Your task to perform on an android device: Go to Google Image 0: 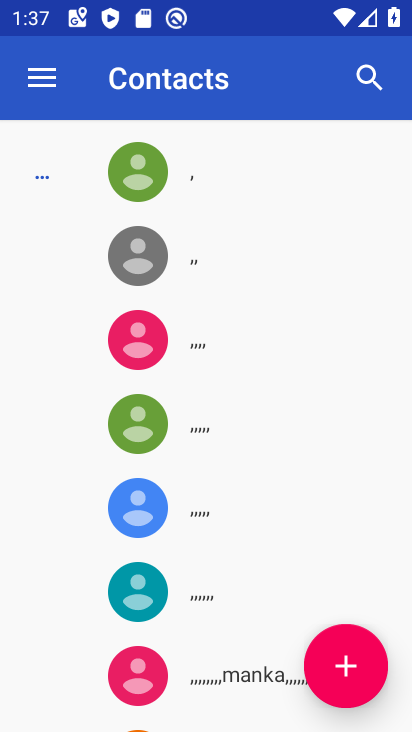
Step 0: press home button
Your task to perform on an android device: Go to Google Image 1: 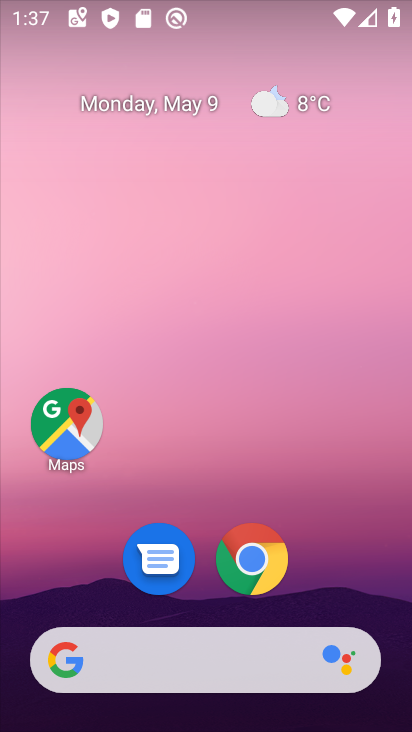
Step 1: click (169, 657)
Your task to perform on an android device: Go to Google Image 2: 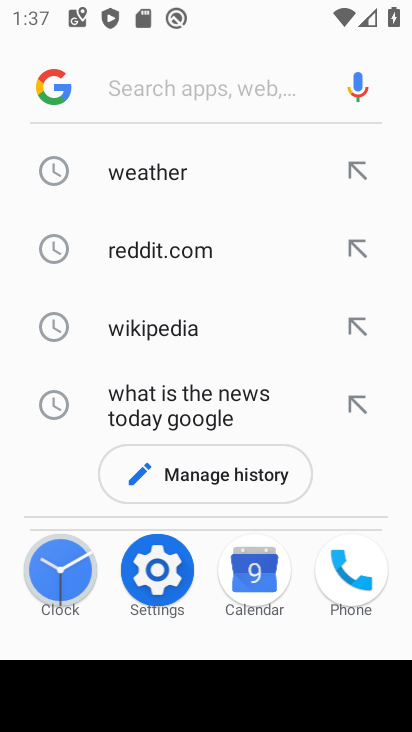
Step 2: click (137, 80)
Your task to perform on an android device: Go to Google Image 3: 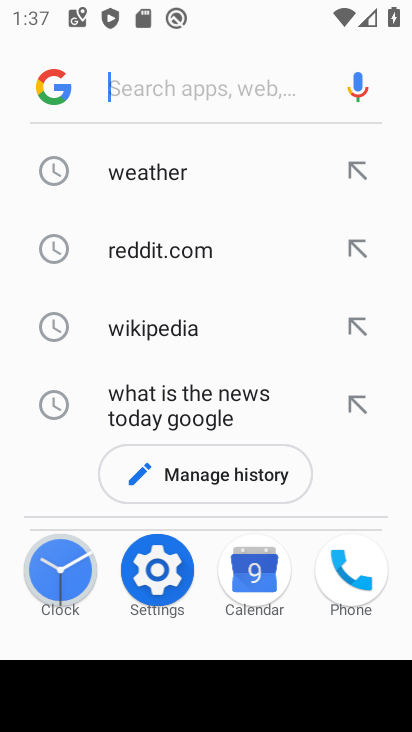
Step 3: task complete